Your task to perform on an android device: manage bookmarks in the chrome app Image 0: 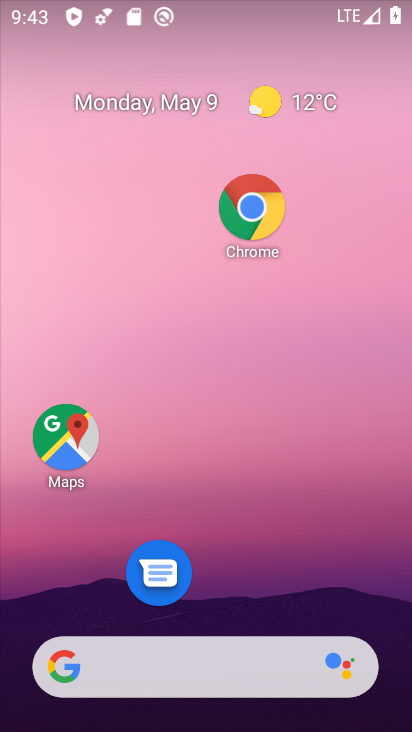
Step 0: click (243, 236)
Your task to perform on an android device: manage bookmarks in the chrome app Image 1: 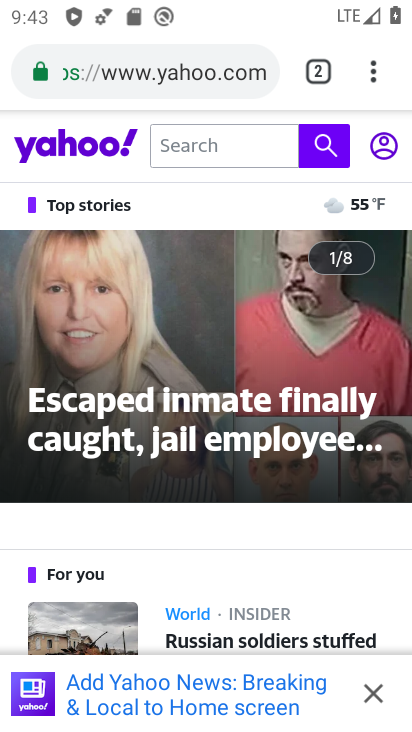
Step 1: click (373, 75)
Your task to perform on an android device: manage bookmarks in the chrome app Image 2: 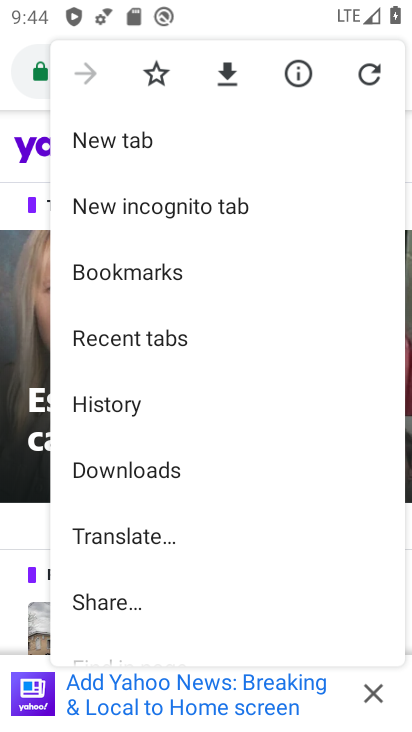
Step 2: click (151, 273)
Your task to perform on an android device: manage bookmarks in the chrome app Image 3: 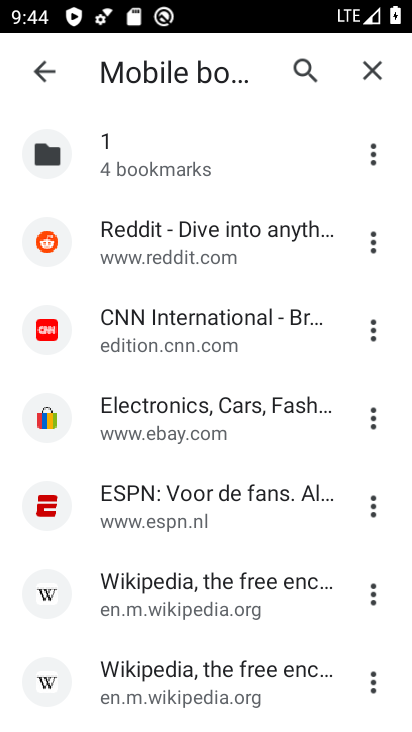
Step 3: task complete